Your task to perform on an android device: Search for Mexican restaurants on Maps Image 0: 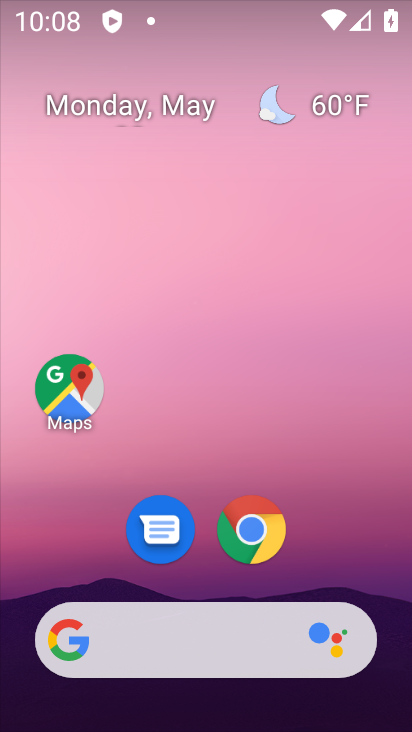
Step 0: click (64, 401)
Your task to perform on an android device: Search for Mexican restaurants on Maps Image 1: 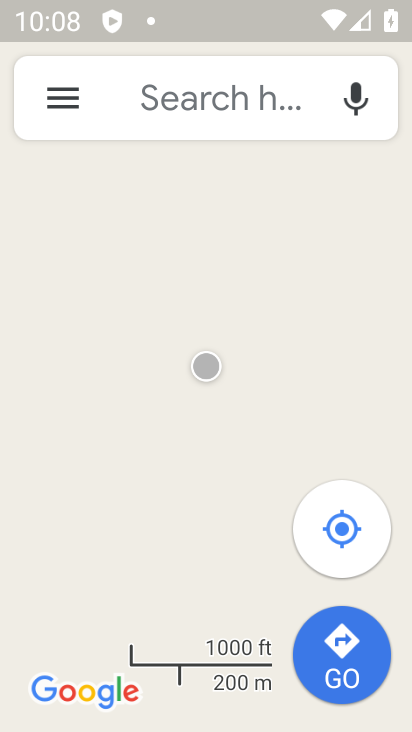
Step 1: click (211, 114)
Your task to perform on an android device: Search for Mexican restaurants on Maps Image 2: 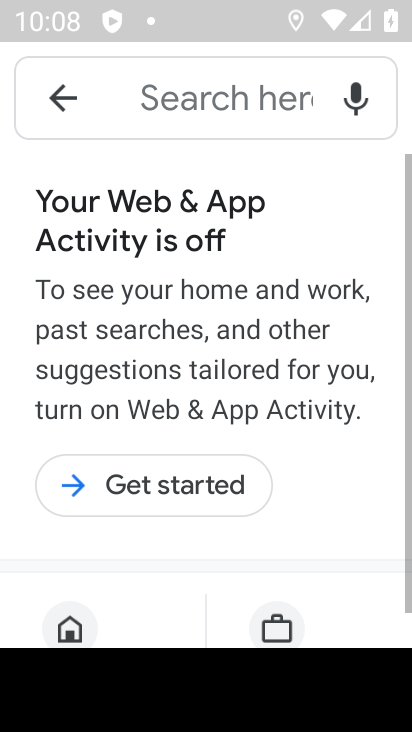
Step 2: click (67, 110)
Your task to perform on an android device: Search for Mexican restaurants on Maps Image 3: 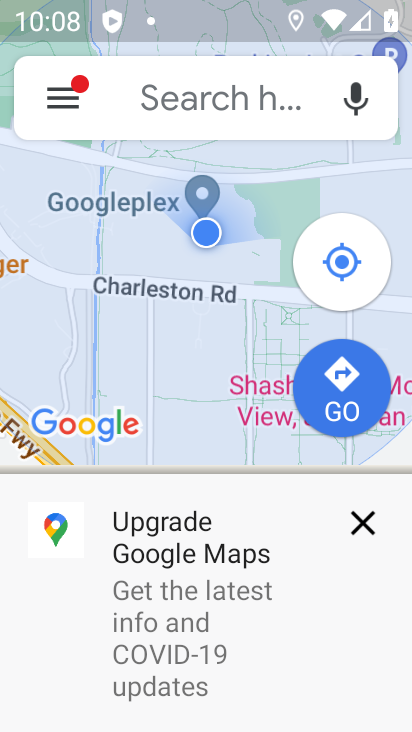
Step 3: click (179, 88)
Your task to perform on an android device: Search for Mexican restaurants on Maps Image 4: 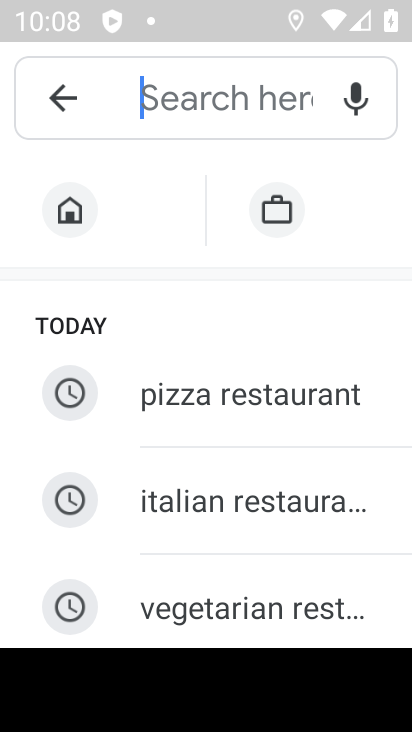
Step 4: drag from (250, 560) to (228, 223)
Your task to perform on an android device: Search for Mexican restaurants on Maps Image 5: 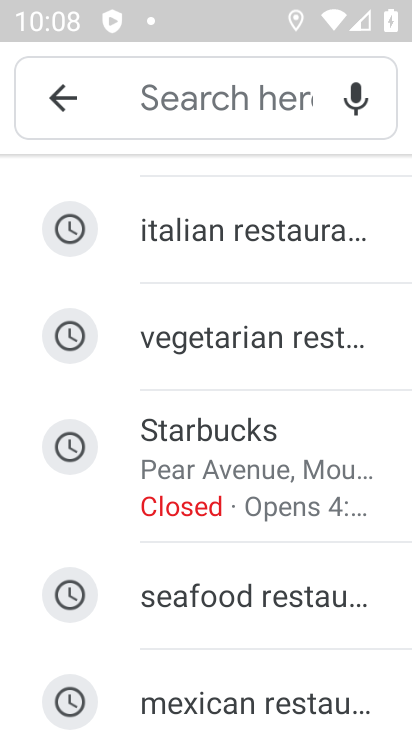
Step 5: click (204, 703)
Your task to perform on an android device: Search for Mexican restaurants on Maps Image 6: 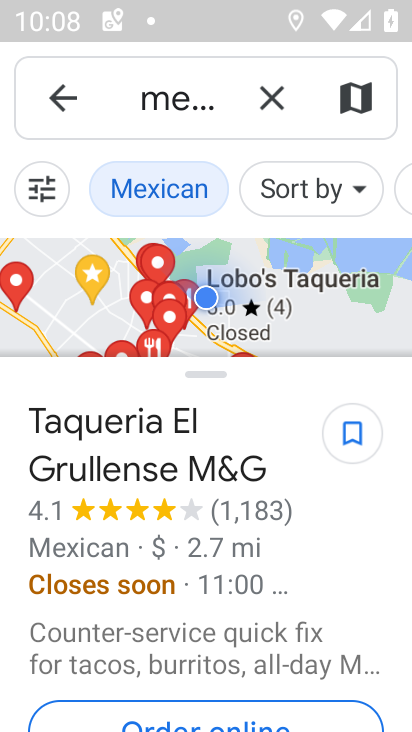
Step 6: task complete